Your task to perform on an android device: Open notification settings Image 0: 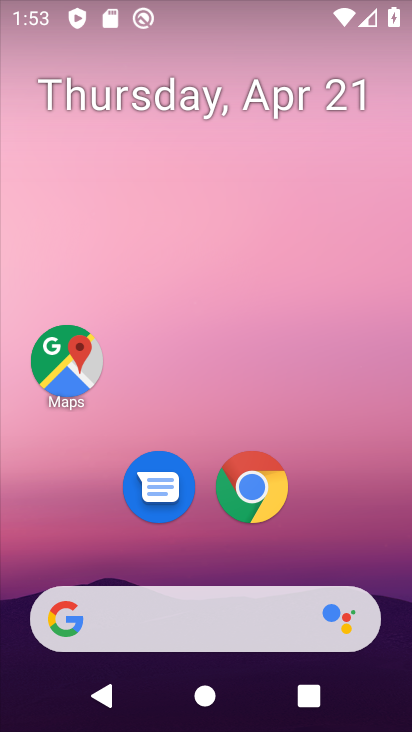
Step 0: drag from (240, 552) to (295, 218)
Your task to perform on an android device: Open notification settings Image 1: 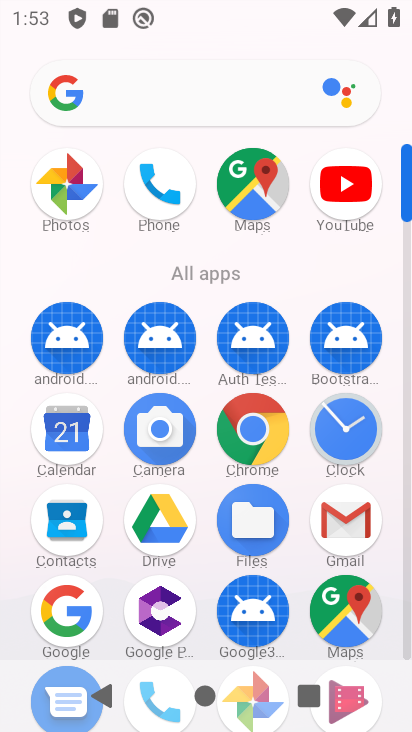
Step 1: drag from (208, 577) to (306, 37)
Your task to perform on an android device: Open notification settings Image 2: 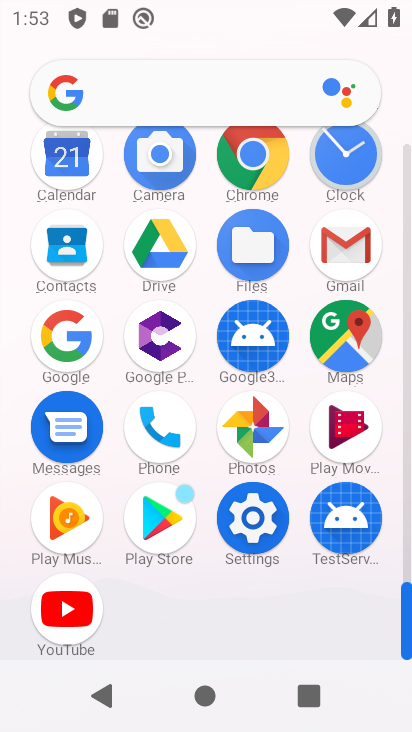
Step 2: click (262, 532)
Your task to perform on an android device: Open notification settings Image 3: 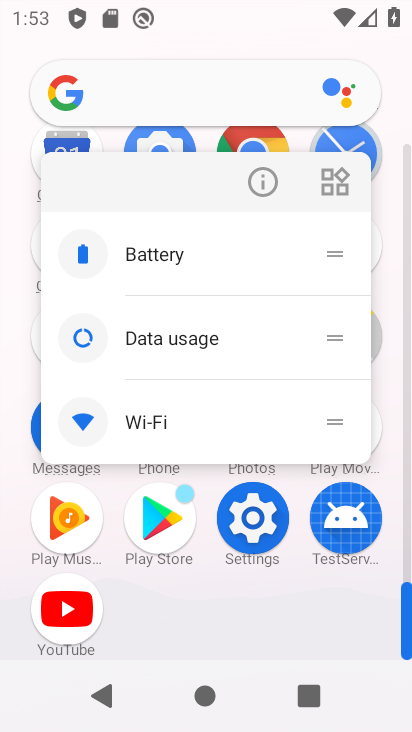
Step 3: click (261, 179)
Your task to perform on an android device: Open notification settings Image 4: 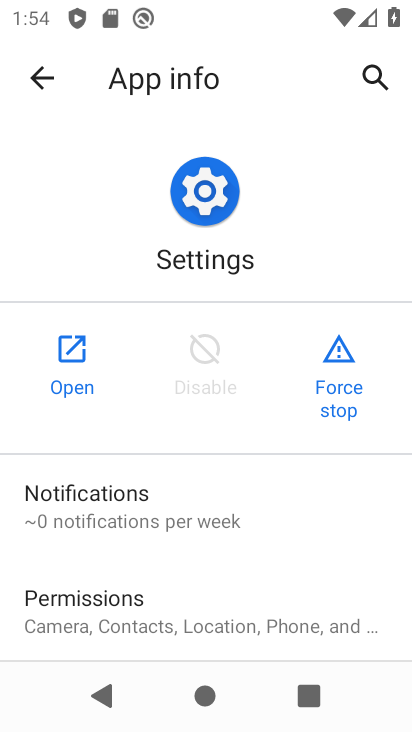
Step 4: click (93, 350)
Your task to perform on an android device: Open notification settings Image 5: 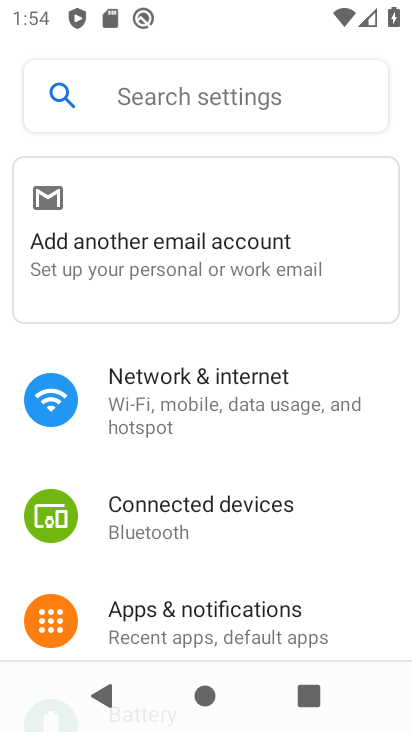
Step 5: click (242, 622)
Your task to perform on an android device: Open notification settings Image 6: 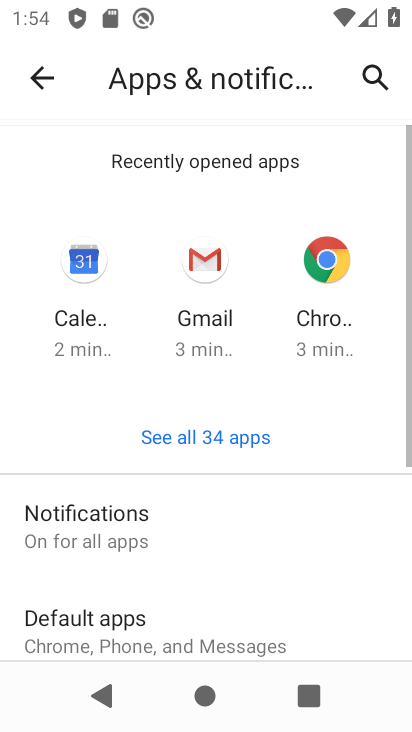
Step 6: drag from (229, 573) to (304, 230)
Your task to perform on an android device: Open notification settings Image 7: 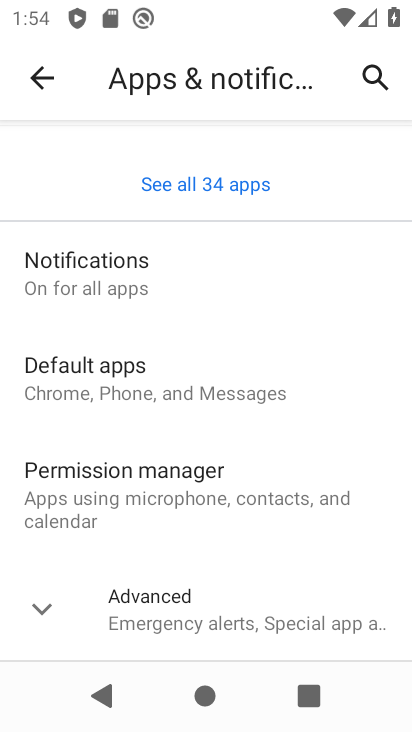
Step 7: click (126, 275)
Your task to perform on an android device: Open notification settings Image 8: 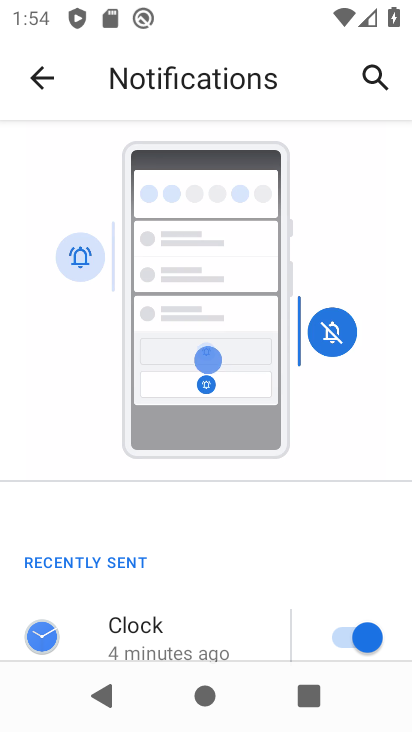
Step 8: drag from (218, 595) to (263, 251)
Your task to perform on an android device: Open notification settings Image 9: 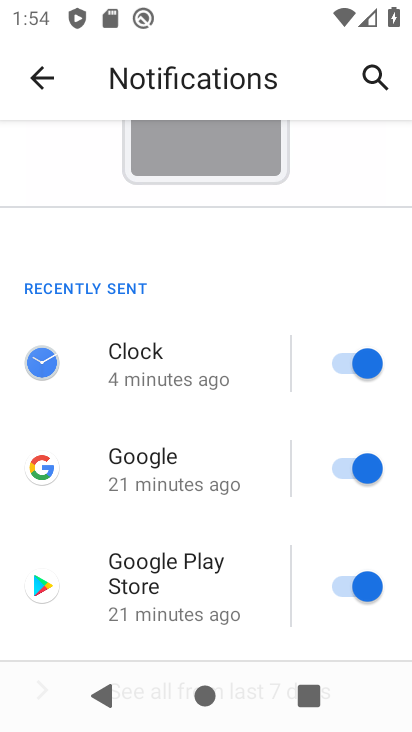
Step 9: drag from (262, 546) to (294, 128)
Your task to perform on an android device: Open notification settings Image 10: 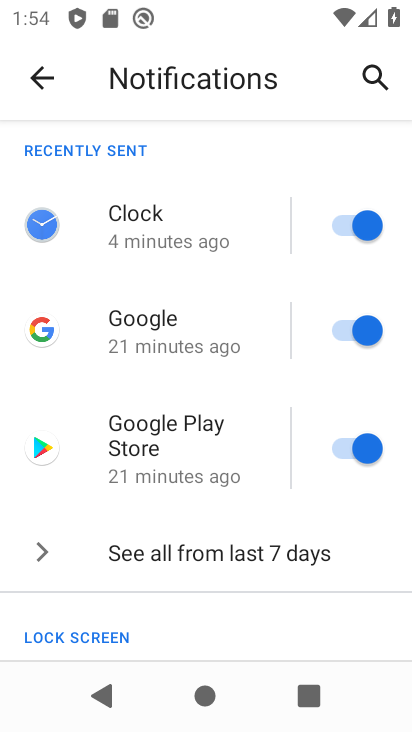
Step 10: drag from (227, 565) to (259, 183)
Your task to perform on an android device: Open notification settings Image 11: 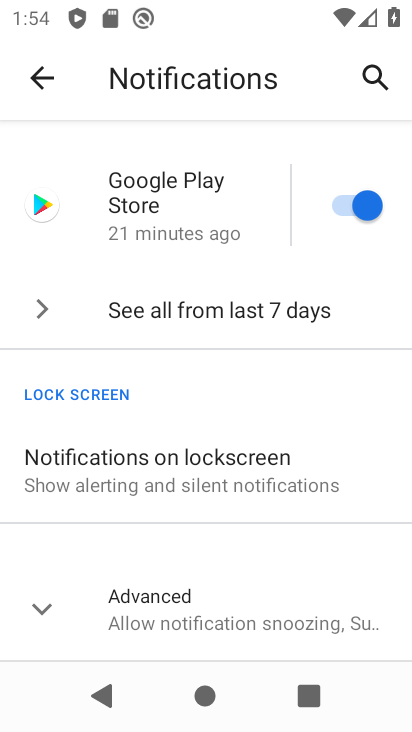
Step 11: click (355, 206)
Your task to perform on an android device: Open notification settings Image 12: 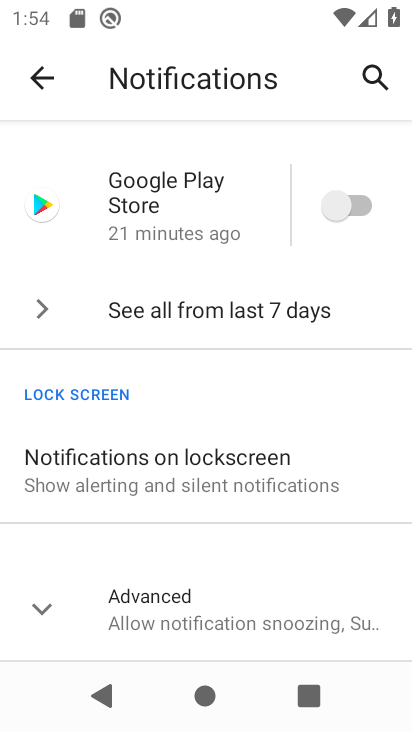
Step 12: task complete